Your task to perform on an android device: Open settings Image 0: 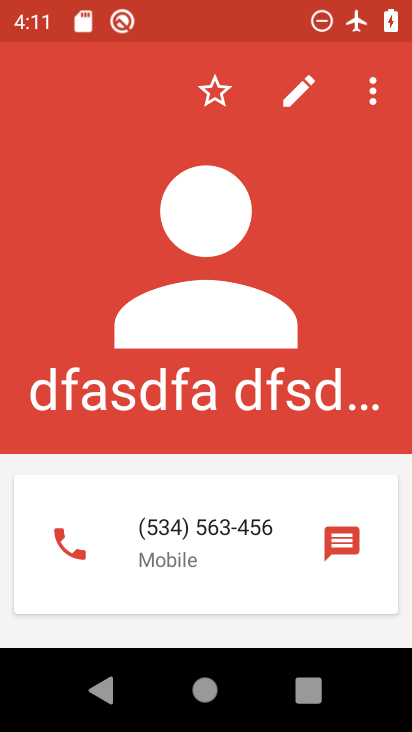
Step 0: press home button
Your task to perform on an android device: Open settings Image 1: 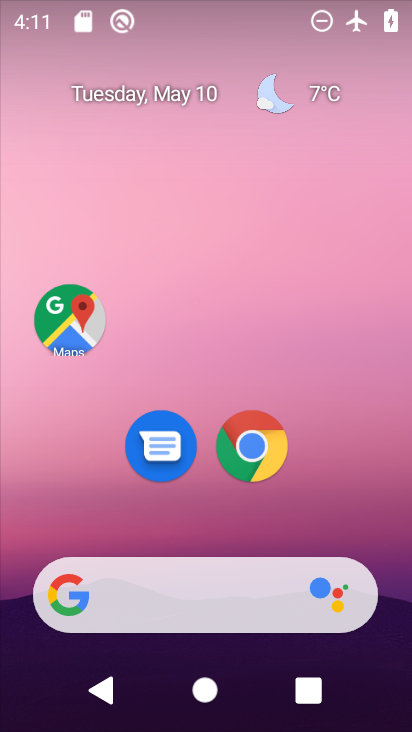
Step 1: drag from (278, 530) to (184, 2)
Your task to perform on an android device: Open settings Image 2: 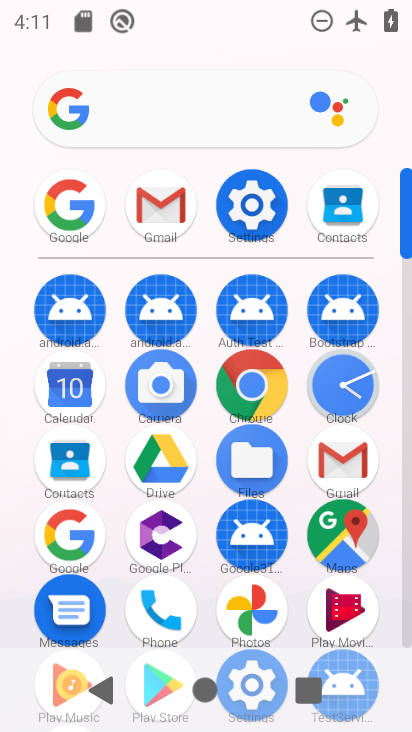
Step 2: click (244, 228)
Your task to perform on an android device: Open settings Image 3: 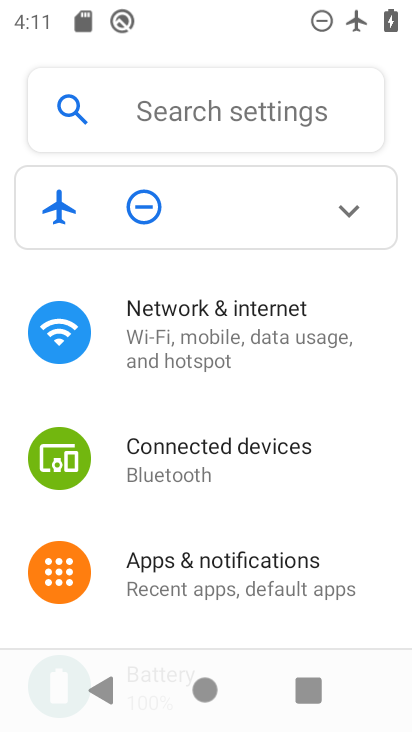
Step 3: task complete